Your task to perform on an android device: delete a single message in the gmail app Image 0: 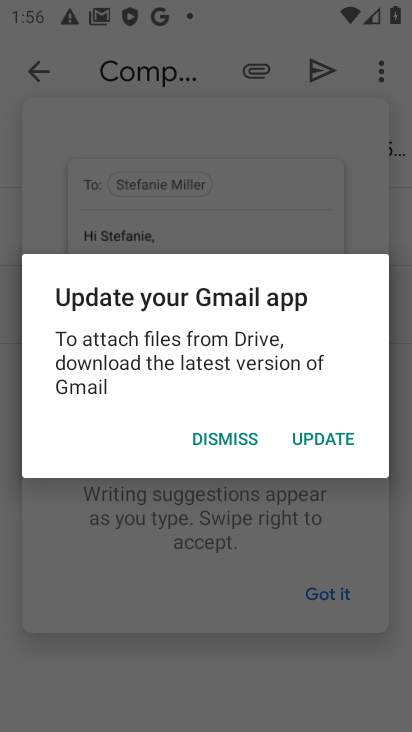
Step 0: press home button
Your task to perform on an android device: delete a single message in the gmail app Image 1: 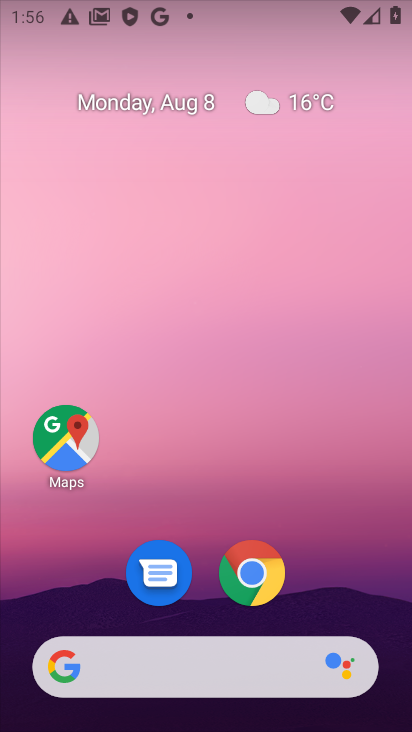
Step 1: drag from (170, 662) to (320, 182)
Your task to perform on an android device: delete a single message in the gmail app Image 2: 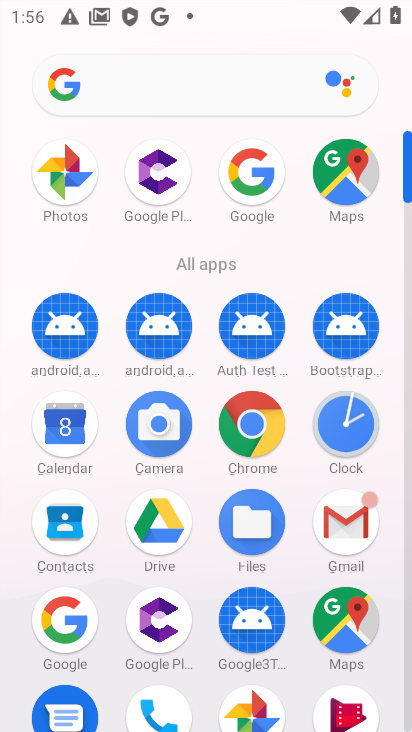
Step 2: click (343, 518)
Your task to perform on an android device: delete a single message in the gmail app Image 3: 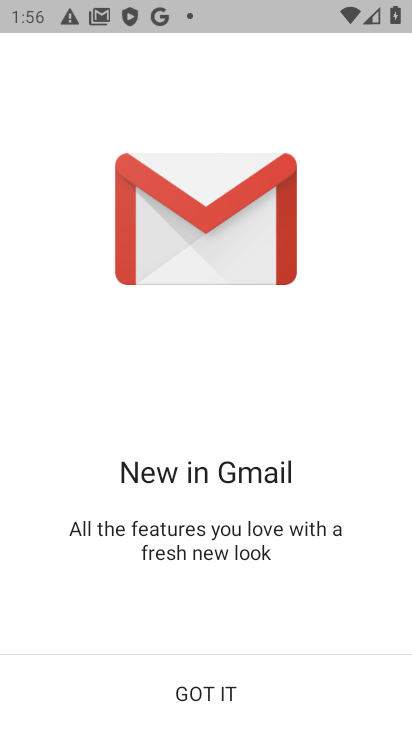
Step 3: click (220, 692)
Your task to perform on an android device: delete a single message in the gmail app Image 4: 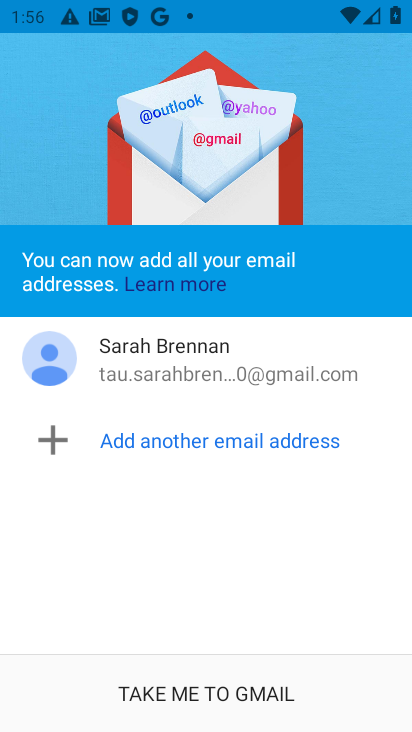
Step 4: click (220, 692)
Your task to perform on an android device: delete a single message in the gmail app Image 5: 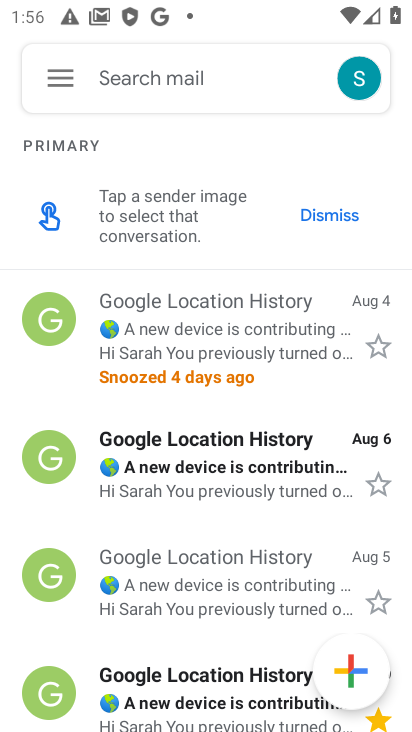
Step 5: click (244, 334)
Your task to perform on an android device: delete a single message in the gmail app Image 6: 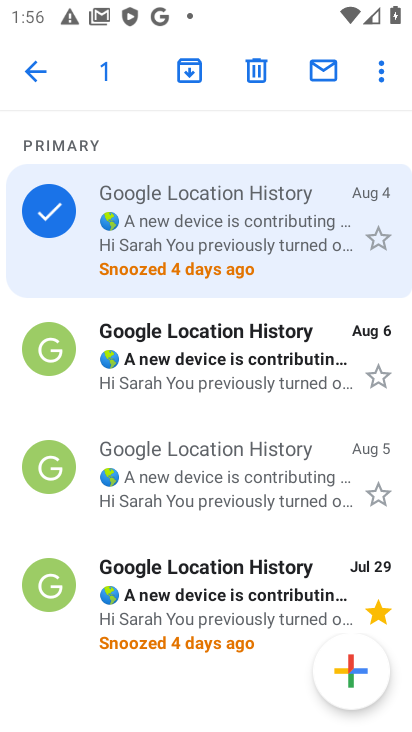
Step 6: click (253, 71)
Your task to perform on an android device: delete a single message in the gmail app Image 7: 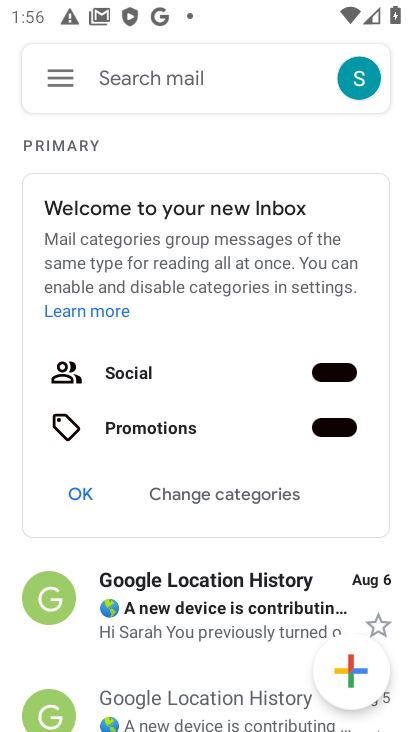
Step 7: task complete